Your task to perform on an android device: Go to internet settings Image 0: 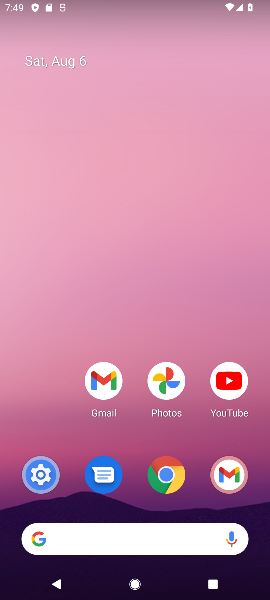
Step 0: click (51, 475)
Your task to perform on an android device: Go to internet settings Image 1: 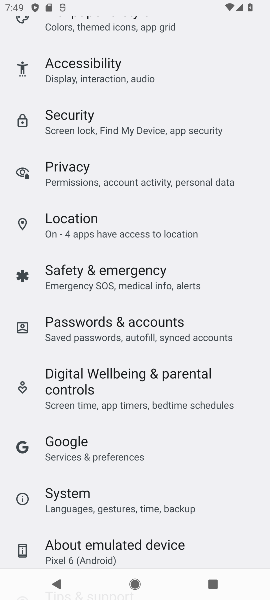
Step 1: drag from (91, 172) to (135, 530)
Your task to perform on an android device: Go to internet settings Image 2: 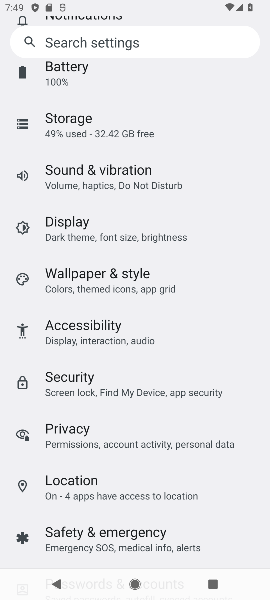
Step 2: drag from (146, 190) to (212, 558)
Your task to perform on an android device: Go to internet settings Image 3: 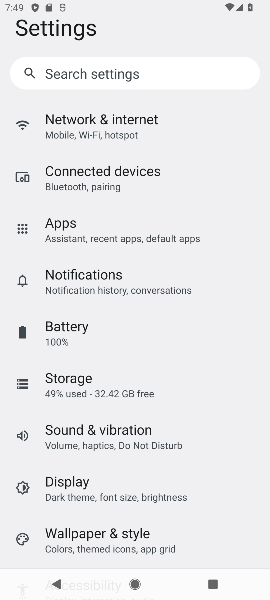
Step 3: click (114, 138)
Your task to perform on an android device: Go to internet settings Image 4: 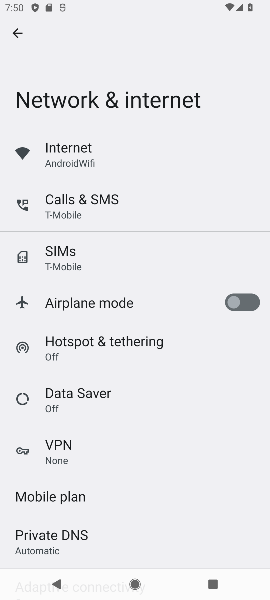
Step 4: click (91, 150)
Your task to perform on an android device: Go to internet settings Image 5: 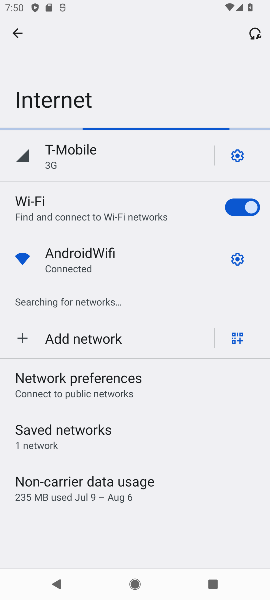
Step 5: task complete